Your task to perform on an android device: turn pop-ups on in chrome Image 0: 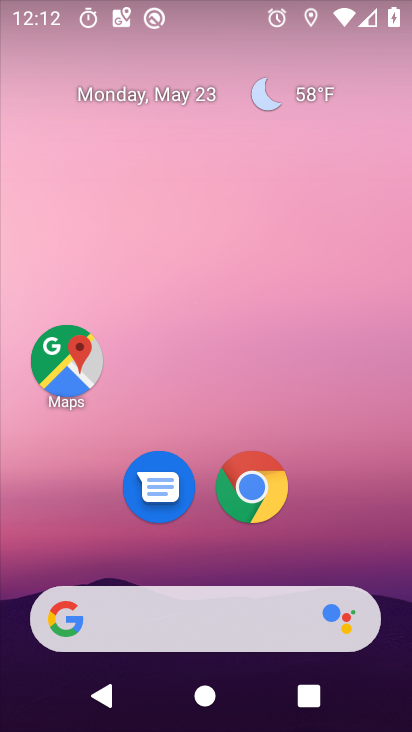
Step 0: drag from (326, 523) to (344, 205)
Your task to perform on an android device: turn pop-ups on in chrome Image 1: 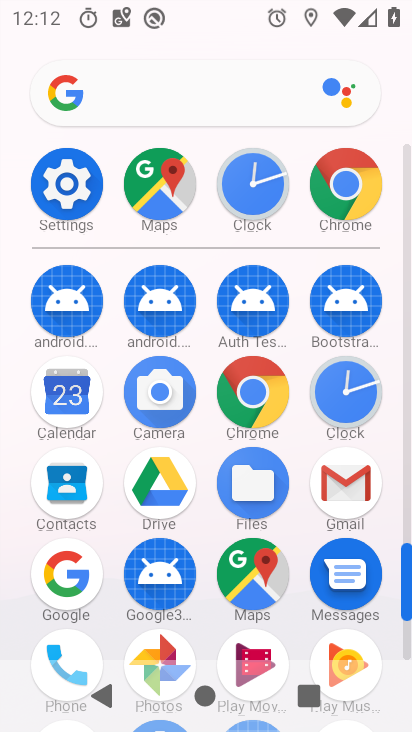
Step 1: click (259, 406)
Your task to perform on an android device: turn pop-ups on in chrome Image 2: 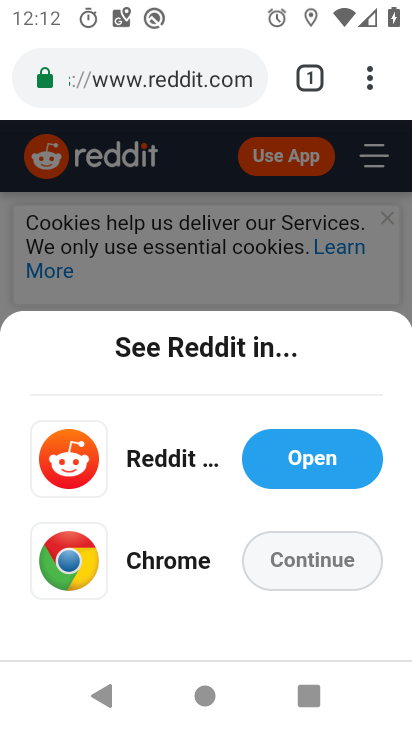
Step 2: drag from (371, 75) to (213, 554)
Your task to perform on an android device: turn pop-ups on in chrome Image 3: 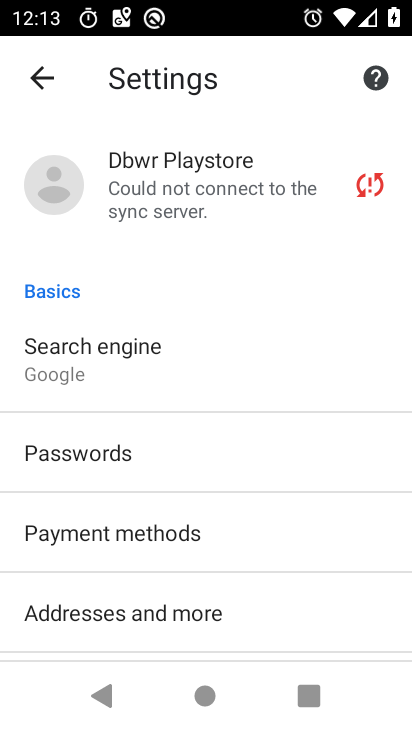
Step 3: drag from (285, 620) to (301, 269)
Your task to perform on an android device: turn pop-ups on in chrome Image 4: 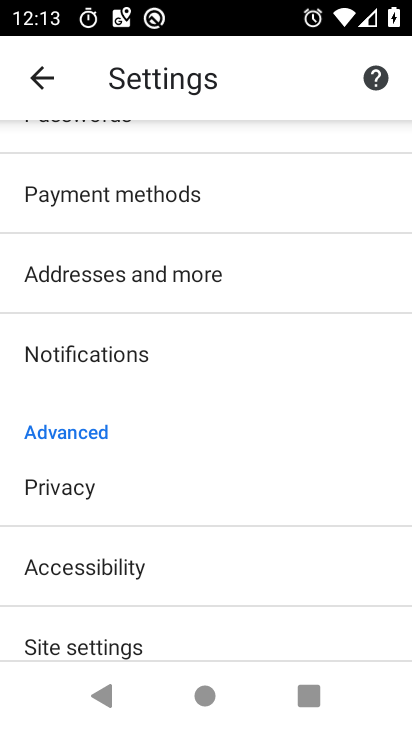
Step 4: drag from (258, 581) to (283, 251)
Your task to perform on an android device: turn pop-ups on in chrome Image 5: 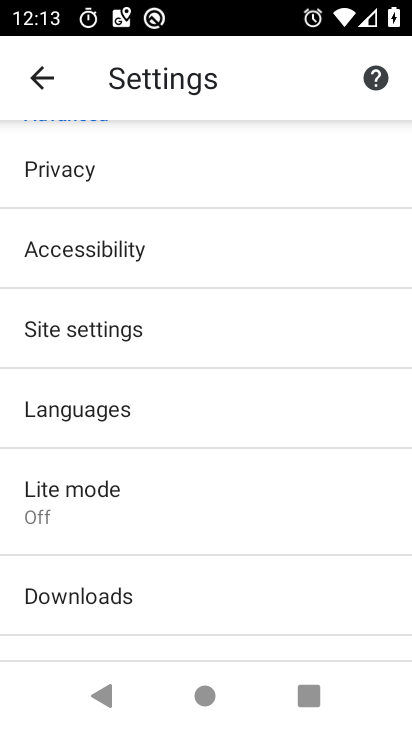
Step 5: click (118, 331)
Your task to perform on an android device: turn pop-ups on in chrome Image 6: 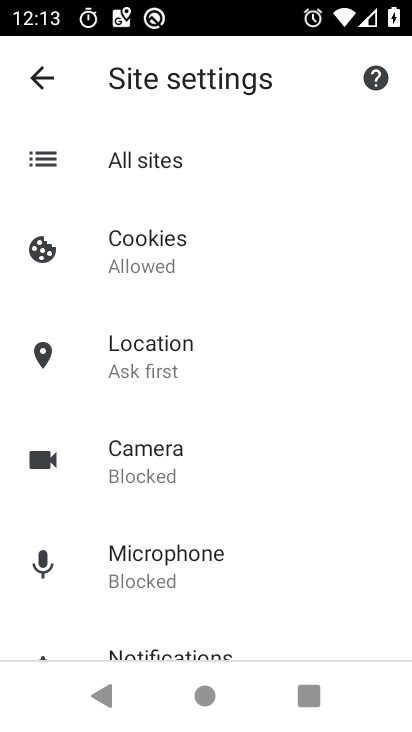
Step 6: drag from (242, 606) to (305, 328)
Your task to perform on an android device: turn pop-ups on in chrome Image 7: 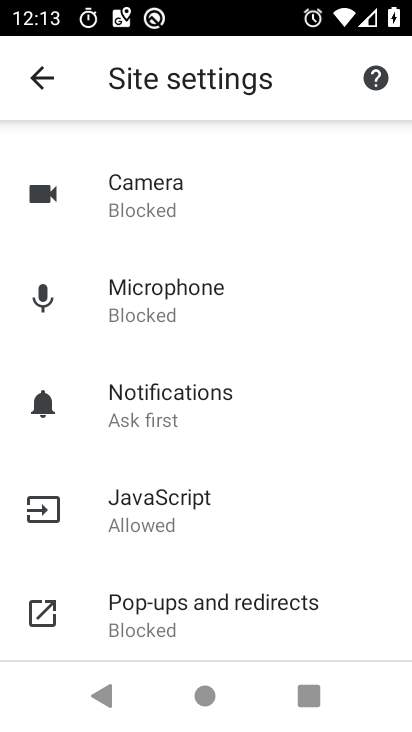
Step 7: click (250, 600)
Your task to perform on an android device: turn pop-ups on in chrome Image 8: 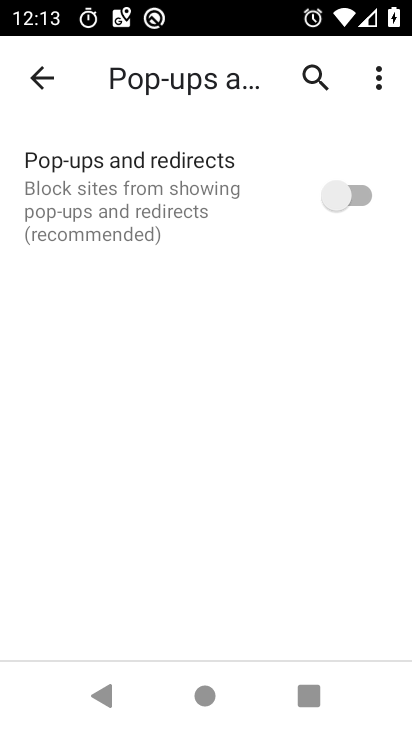
Step 8: click (369, 192)
Your task to perform on an android device: turn pop-ups on in chrome Image 9: 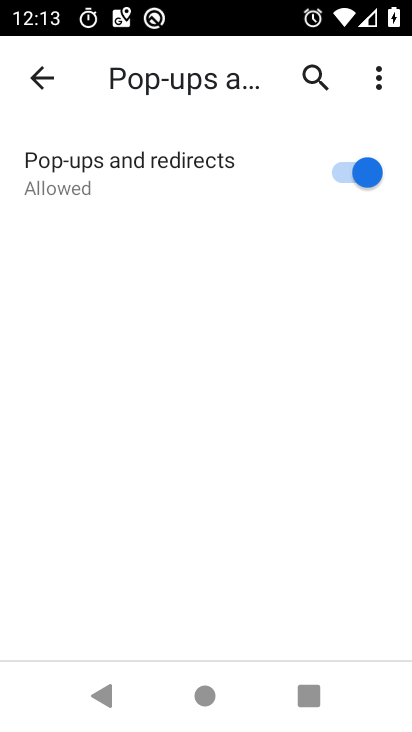
Step 9: task complete